Your task to perform on an android device: turn on wifi Image 0: 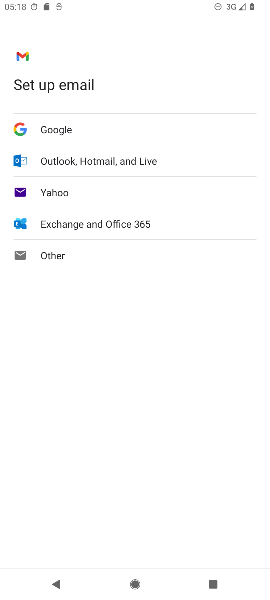
Step 0: press home button
Your task to perform on an android device: turn on wifi Image 1: 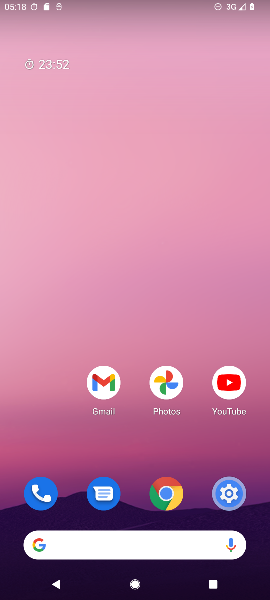
Step 1: drag from (54, 455) to (60, 115)
Your task to perform on an android device: turn on wifi Image 2: 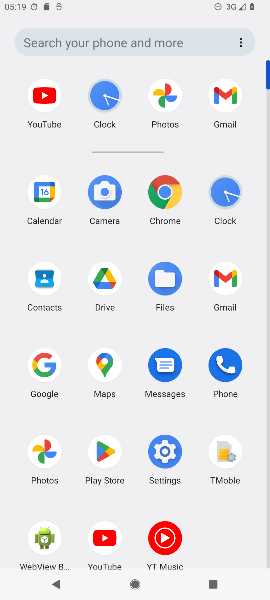
Step 2: click (162, 460)
Your task to perform on an android device: turn on wifi Image 3: 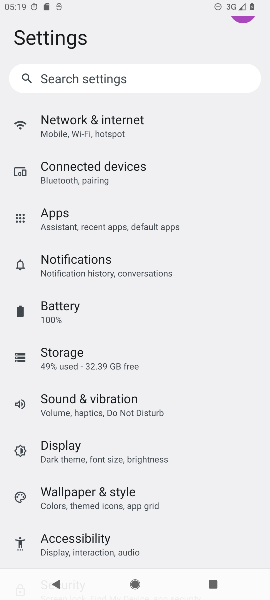
Step 3: drag from (225, 467) to (231, 328)
Your task to perform on an android device: turn on wifi Image 4: 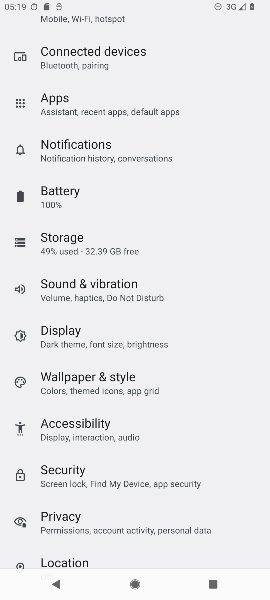
Step 4: drag from (224, 511) to (229, 364)
Your task to perform on an android device: turn on wifi Image 5: 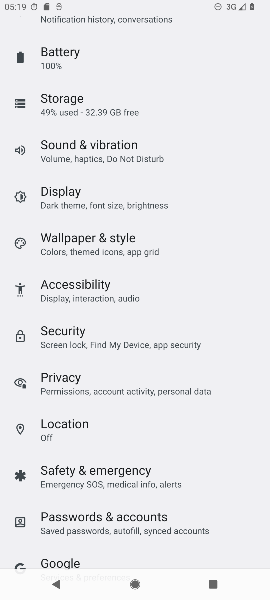
Step 5: drag from (213, 413) to (220, 367)
Your task to perform on an android device: turn on wifi Image 6: 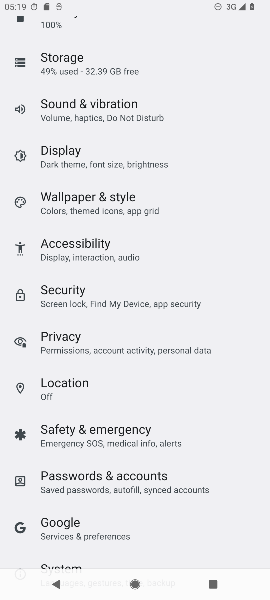
Step 6: drag from (227, 504) to (226, 378)
Your task to perform on an android device: turn on wifi Image 7: 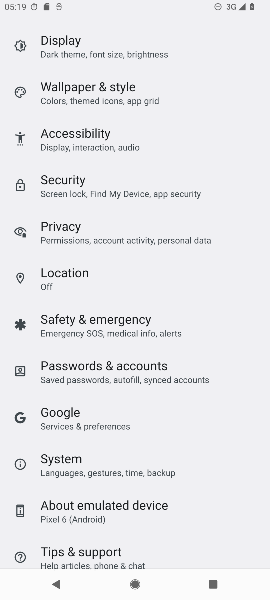
Step 7: drag from (218, 505) to (242, 302)
Your task to perform on an android device: turn on wifi Image 8: 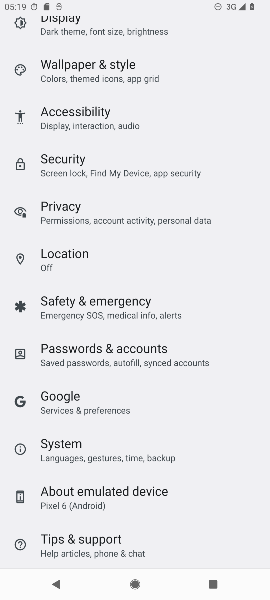
Step 8: drag from (235, 211) to (246, 333)
Your task to perform on an android device: turn on wifi Image 9: 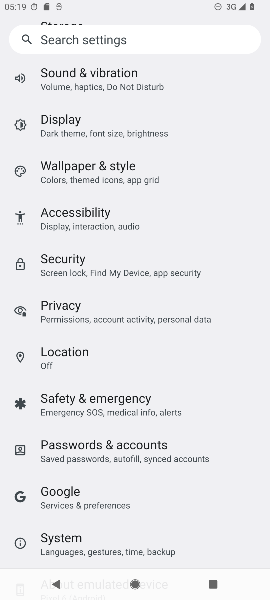
Step 9: drag from (232, 186) to (239, 313)
Your task to perform on an android device: turn on wifi Image 10: 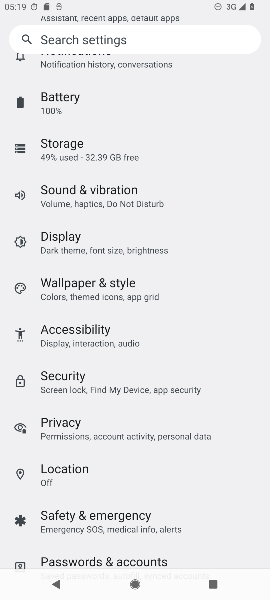
Step 10: drag from (228, 131) to (224, 281)
Your task to perform on an android device: turn on wifi Image 11: 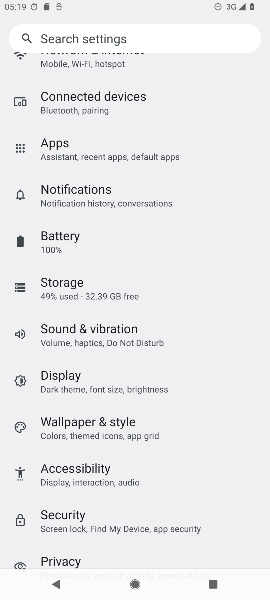
Step 11: drag from (235, 100) to (232, 284)
Your task to perform on an android device: turn on wifi Image 12: 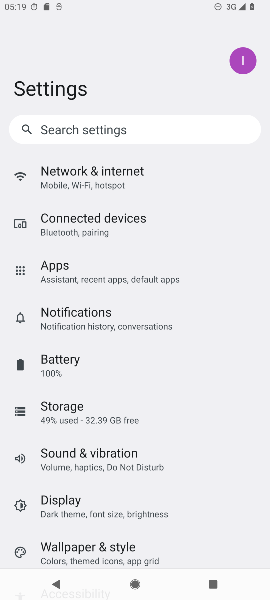
Step 12: click (142, 180)
Your task to perform on an android device: turn on wifi Image 13: 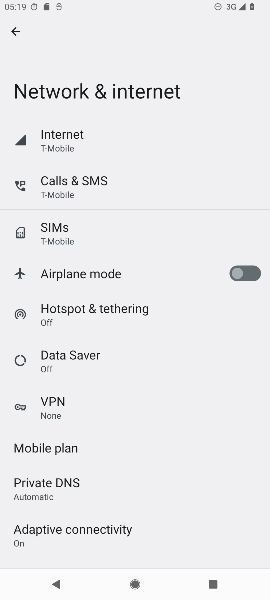
Step 13: click (89, 137)
Your task to perform on an android device: turn on wifi Image 14: 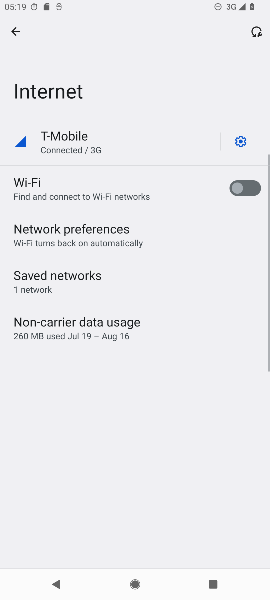
Step 14: click (243, 181)
Your task to perform on an android device: turn on wifi Image 15: 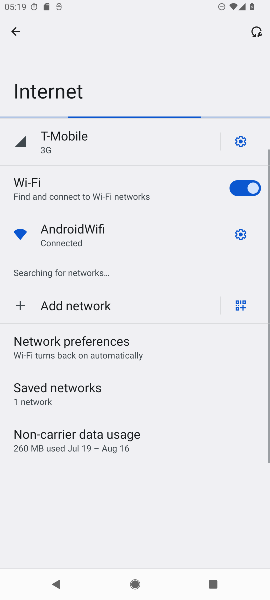
Step 15: task complete